Your task to perform on an android device: make emails show in primary in the gmail app Image 0: 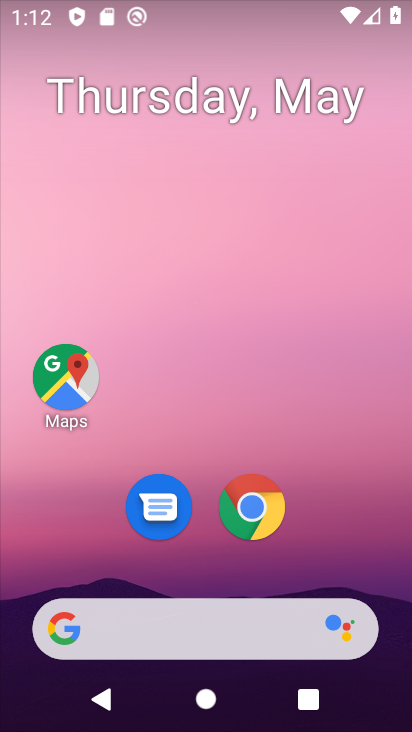
Step 0: drag from (336, 493) to (323, 207)
Your task to perform on an android device: make emails show in primary in the gmail app Image 1: 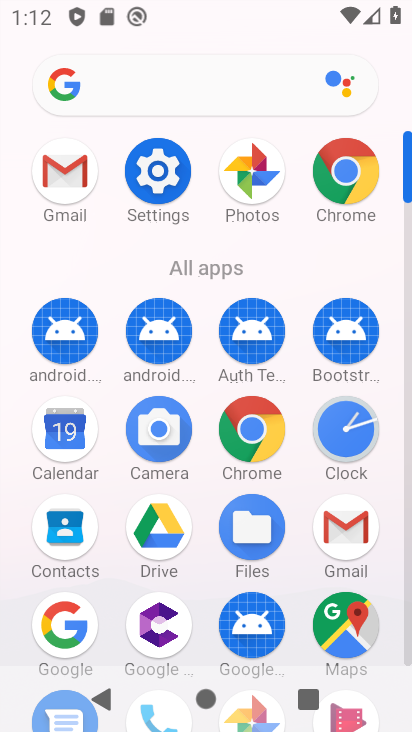
Step 1: click (340, 525)
Your task to perform on an android device: make emails show in primary in the gmail app Image 2: 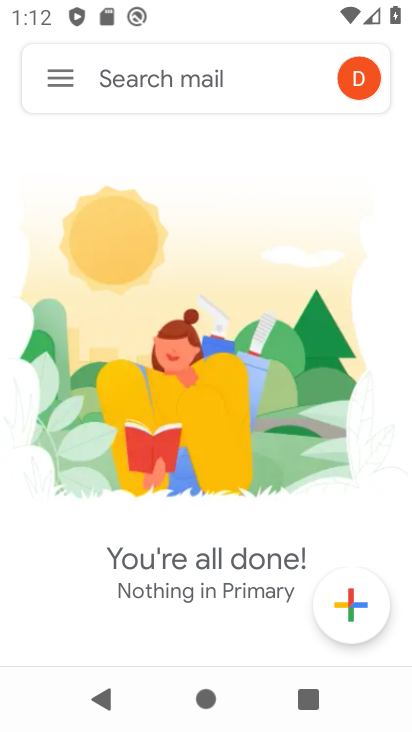
Step 2: click (59, 78)
Your task to perform on an android device: make emails show in primary in the gmail app Image 3: 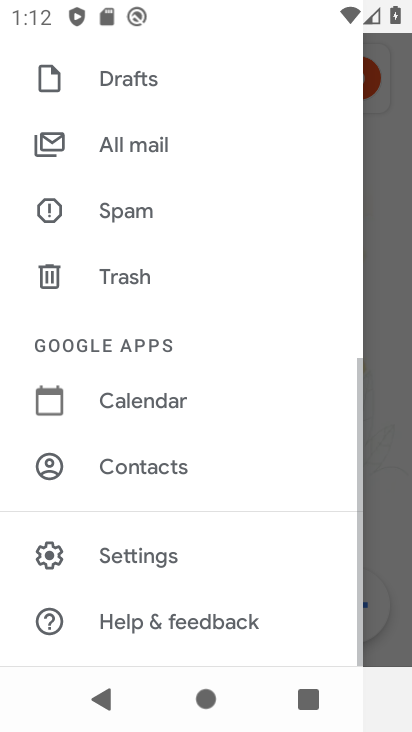
Step 3: click (142, 556)
Your task to perform on an android device: make emails show in primary in the gmail app Image 4: 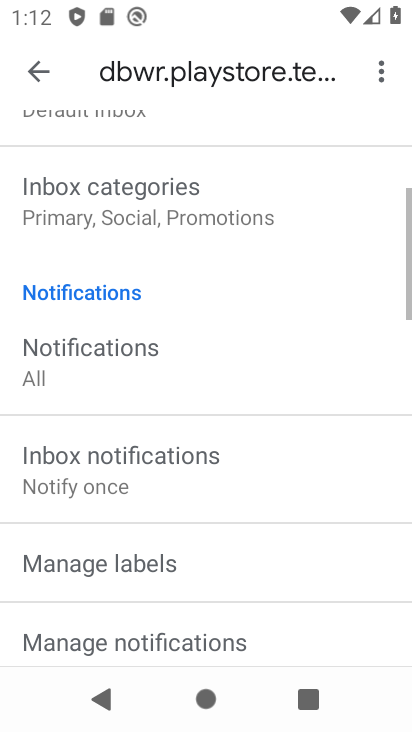
Step 4: task complete